Your task to perform on an android device: Search for Italian restaurants on Maps Image 0: 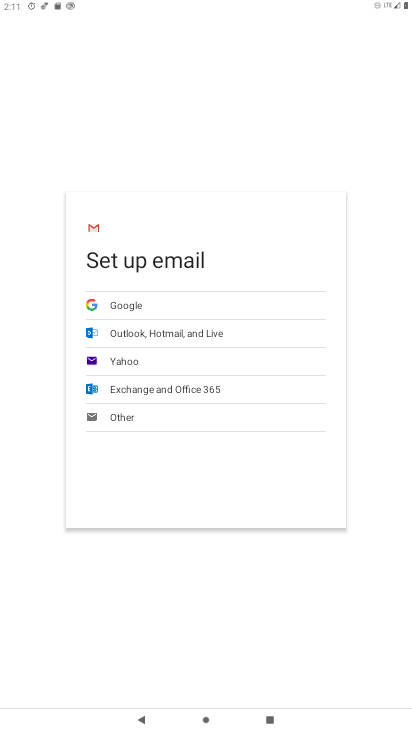
Step 0: press home button
Your task to perform on an android device: Search for Italian restaurants on Maps Image 1: 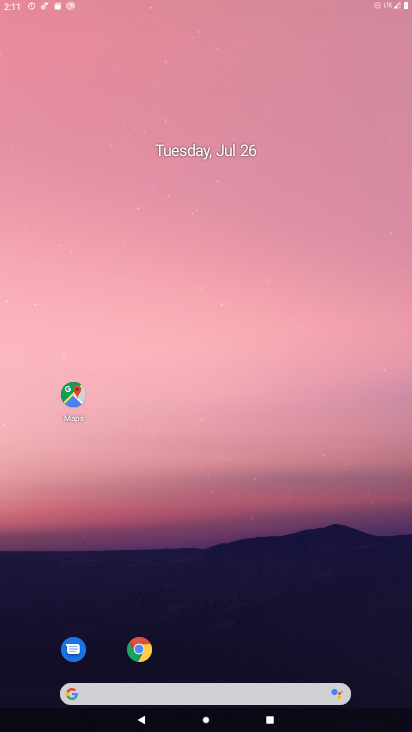
Step 1: drag from (388, 654) to (259, 45)
Your task to perform on an android device: Search for Italian restaurants on Maps Image 2: 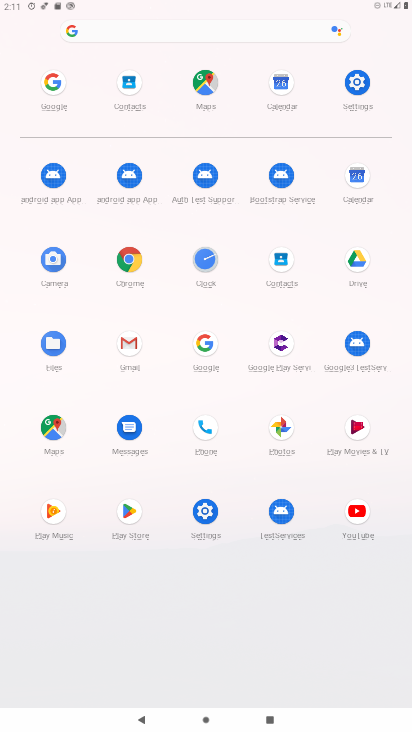
Step 2: click (52, 427)
Your task to perform on an android device: Search for Italian restaurants on Maps Image 3: 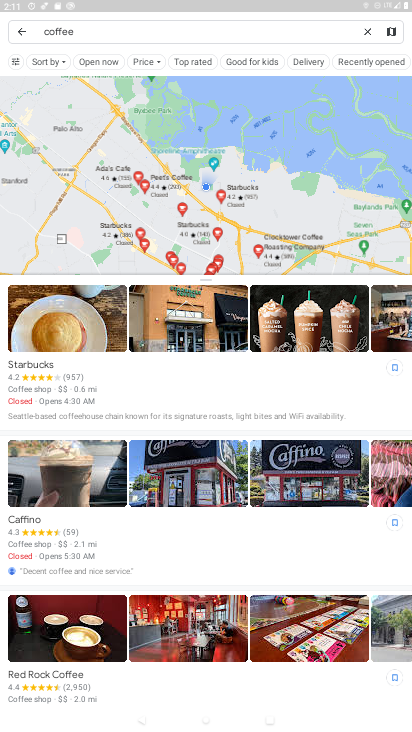
Step 3: click (361, 32)
Your task to perform on an android device: Search for Italian restaurants on Maps Image 4: 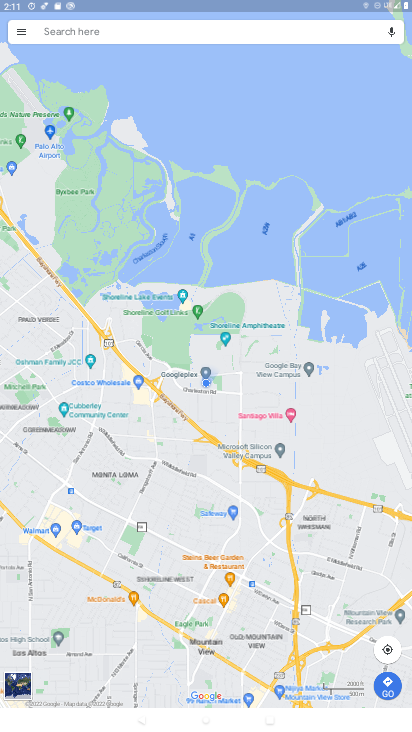
Step 4: click (135, 36)
Your task to perform on an android device: Search for Italian restaurants on Maps Image 5: 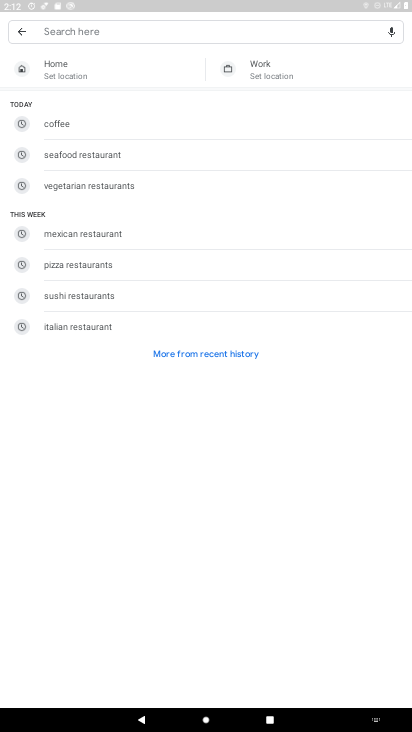
Step 5: click (78, 322)
Your task to perform on an android device: Search for Italian restaurants on Maps Image 6: 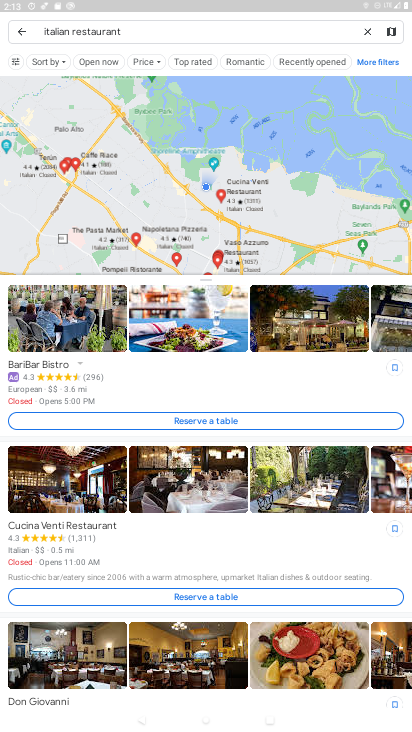
Step 6: task complete